Your task to perform on an android device: Go to battery settings Image 0: 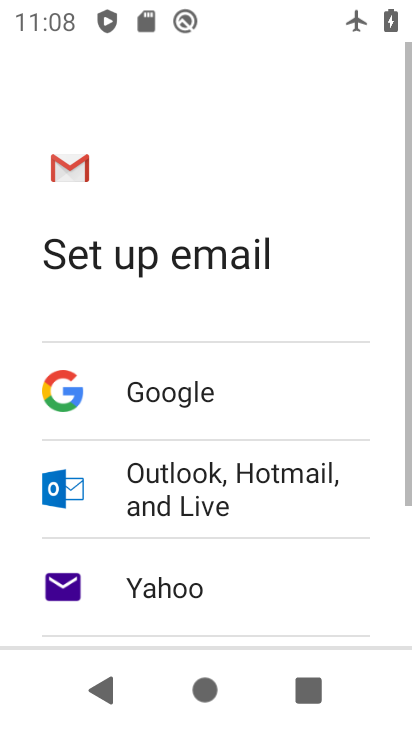
Step 0: press home button
Your task to perform on an android device: Go to battery settings Image 1: 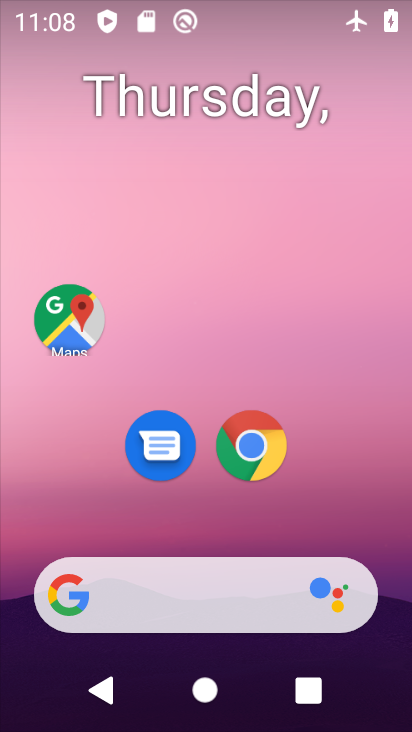
Step 1: drag from (206, 537) to (223, 71)
Your task to perform on an android device: Go to battery settings Image 2: 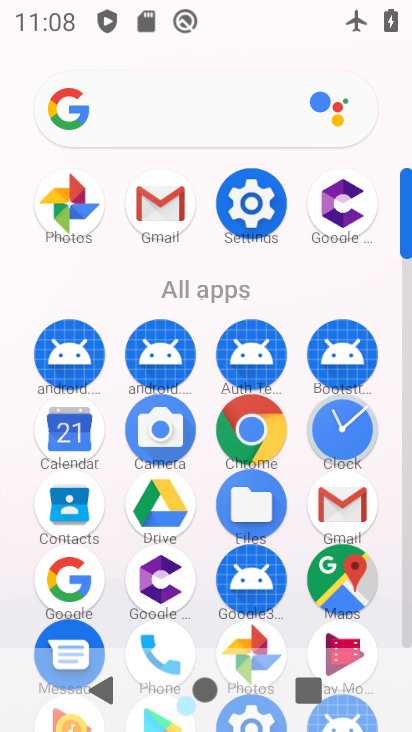
Step 2: click (252, 210)
Your task to perform on an android device: Go to battery settings Image 3: 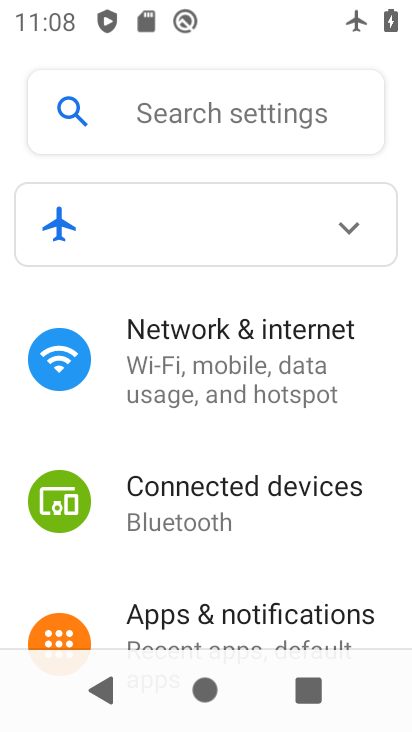
Step 3: drag from (238, 595) to (238, 209)
Your task to perform on an android device: Go to battery settings Image 4: 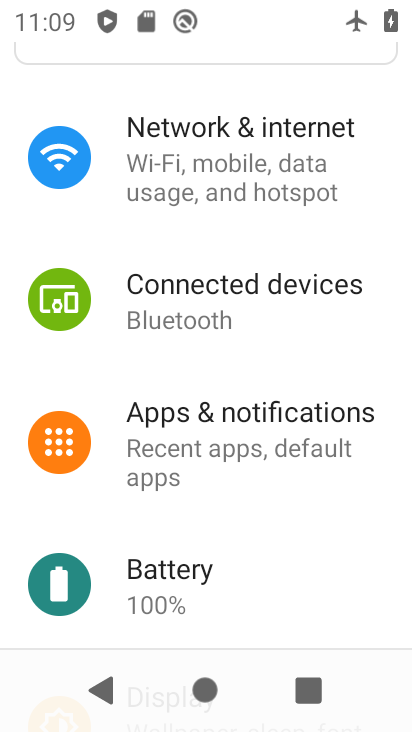
Step 4: click (218, 598)
Your task to perform on an android device: Go to battery settings Image 5: 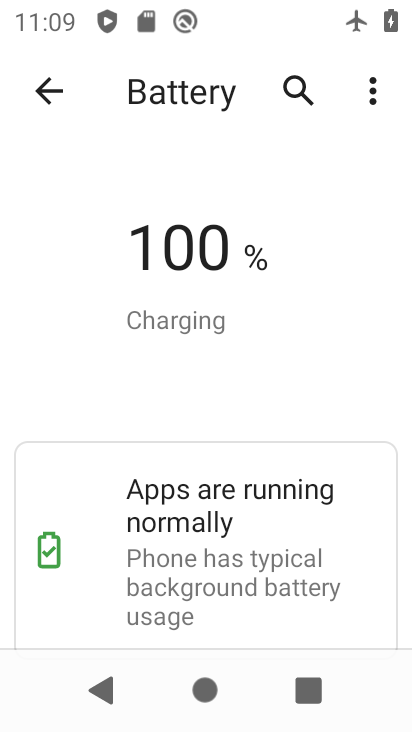
Step 5: task complete